Your task to perform on an android device: What's on my calendar tomorrow? Image 0: 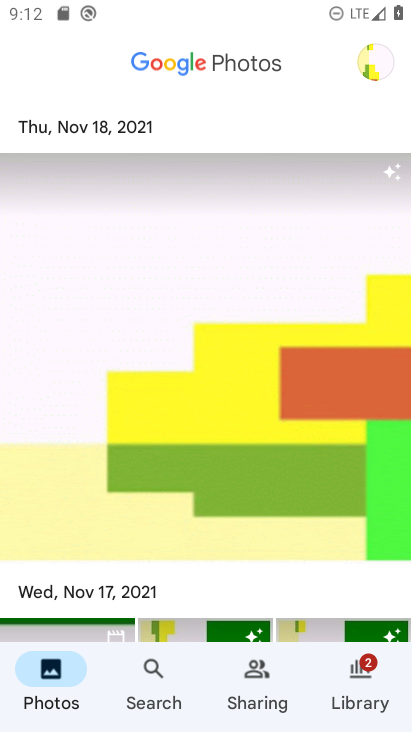
Step 0: press home button
Your task to perform on an android device: What's on my calendar tomorrow? Image 1: 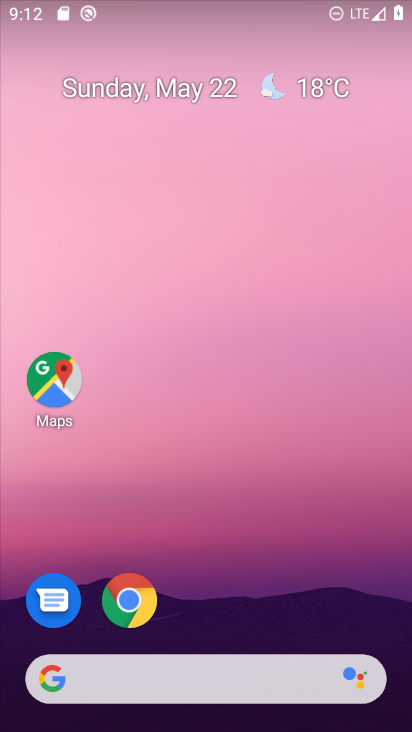
Step 1: drag from (396, 633) to (344, 33)
Your task to perform on an android device: What's on my calendar tomorrow? Image 2: 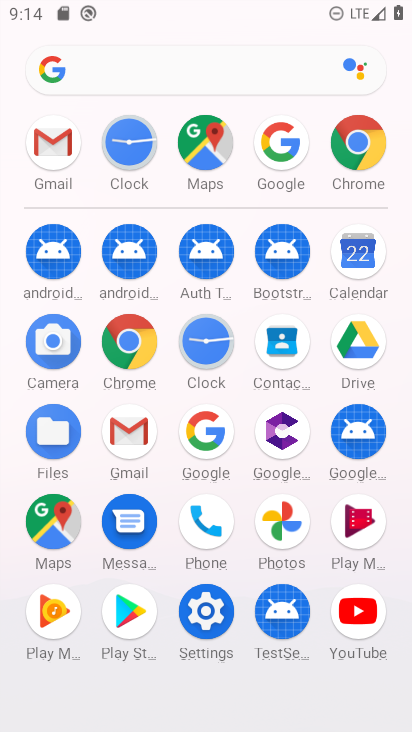
Step 2: click (352, 275)
Your task to perform on an android device: What's on my calendar tomorrow? Image 3: 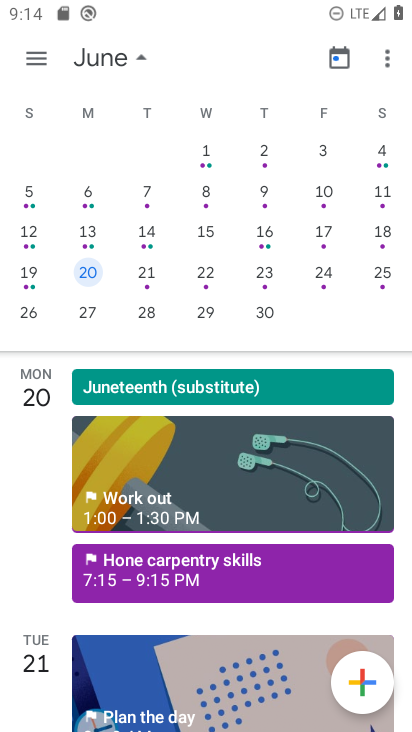
Step 3: click (38, 62)
Your task to perform on an android device: What's on my calendar tomorrow? Image 4: 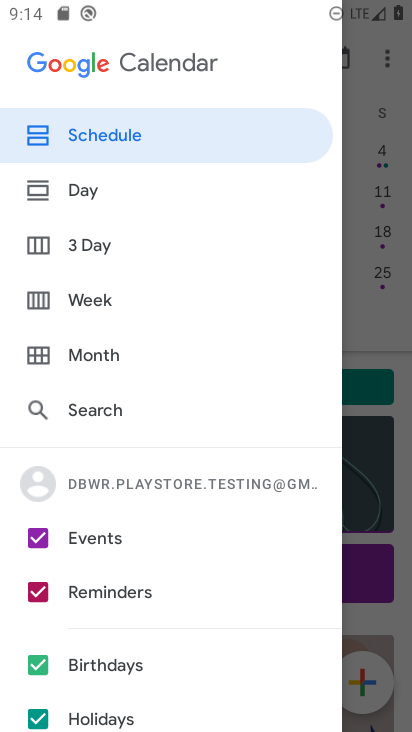
Step 4: click (401, 327)
Your task to perform on an android device: What's on my calendar tomorrow? Image 5: 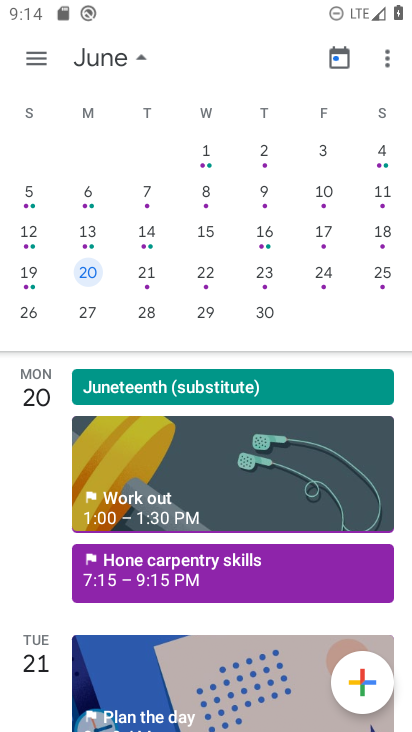
Step 5: drag from (25, 177) to (345, 209)
Your task to perform on an android device: What's on my calendar tomorrow? Image 6: 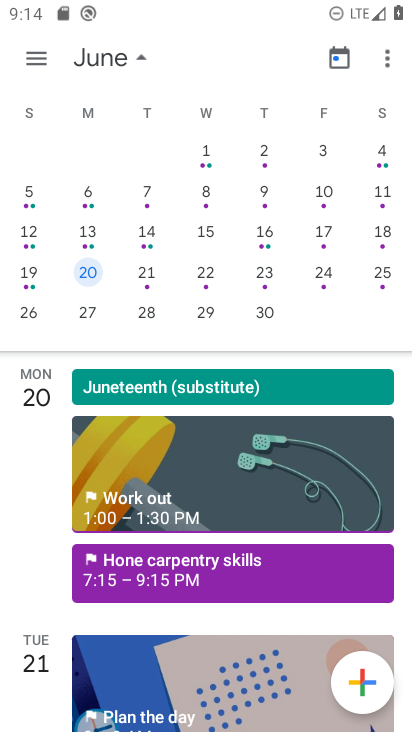
Step 6: drag from (20, 227) to (375, 207)
Your task to perform on an android device: What's on my calendar tomorrow? Image 7: 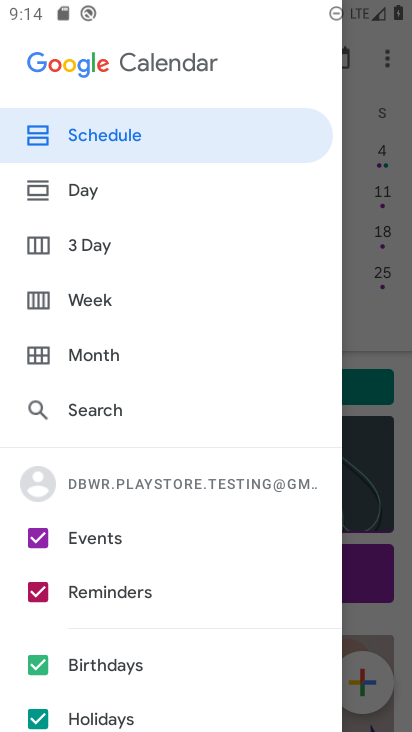
Step 7: drag from (390, 323) to (322, 320)
Your task to perform on an android device: What's on my calendar tomorrow? Image 8: 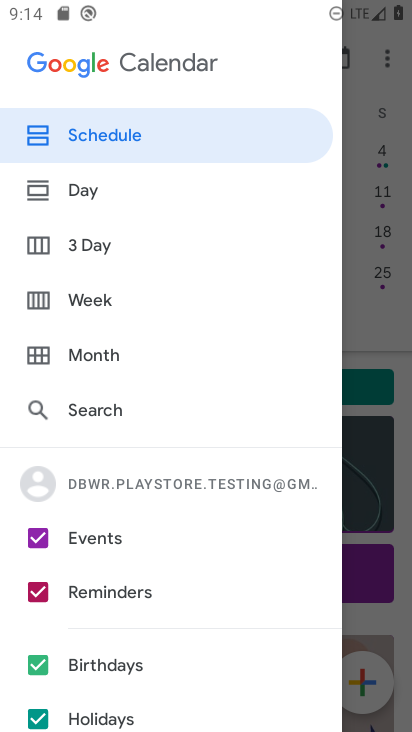
Step 8: click (360, 319)
Your task to perform on an android device: What's on my calendar tomorrow? Image 9: 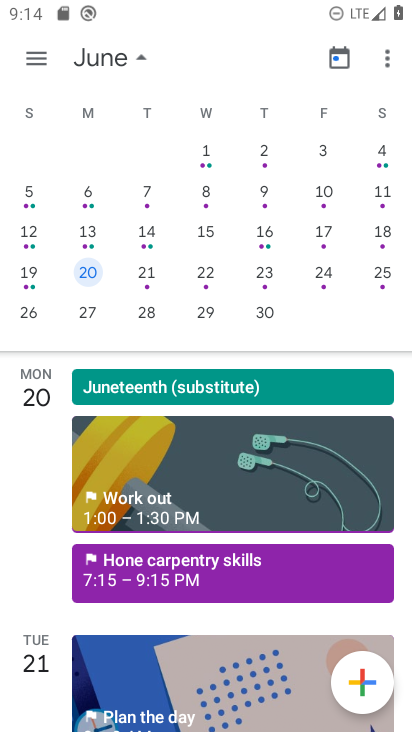
Step 9: drag from (10, 198) to (382, 192)
Your task to perform on an android device: What's on my calendar tomorrow? Image 10: 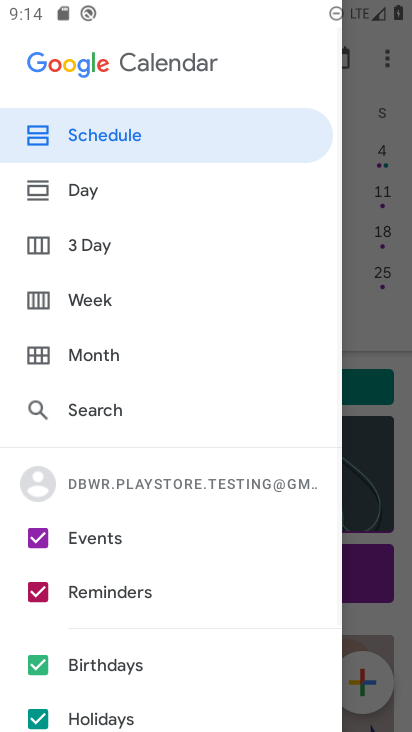
Step 10: click (359, 307)
Your task to perform on an android device: What's on my calendar tomorrow? Image 11: 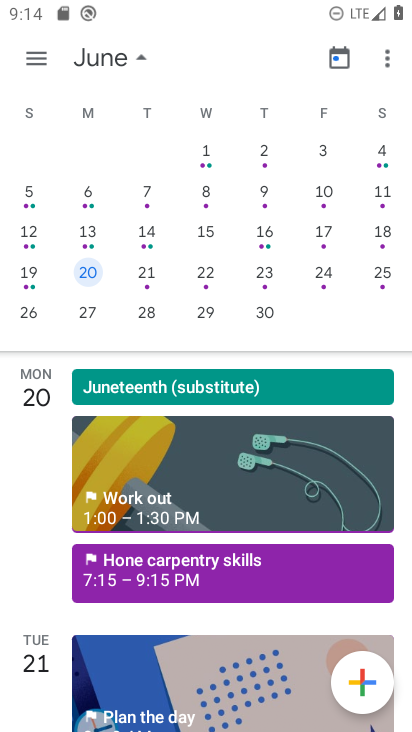
Step 11: drag from (140, 237) to (394, 237)
Your task to perform on an android device: What's on my calendar tomorrow? Image 12: 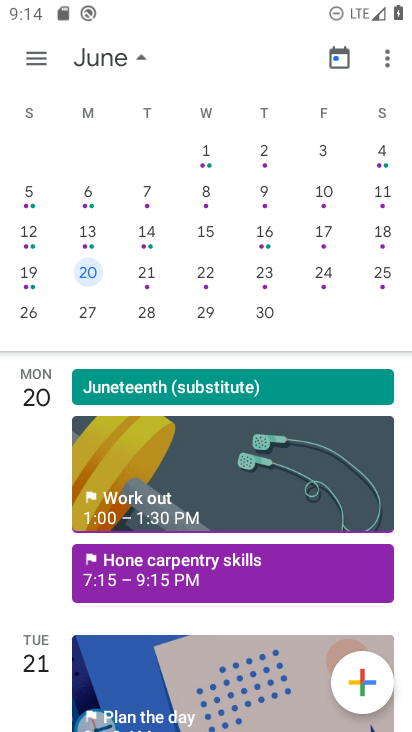
Step 12: drag from (69, 241) to (336, 232)
Your task to perform on an android device: What's on my calendar tomorrow? Image 13: 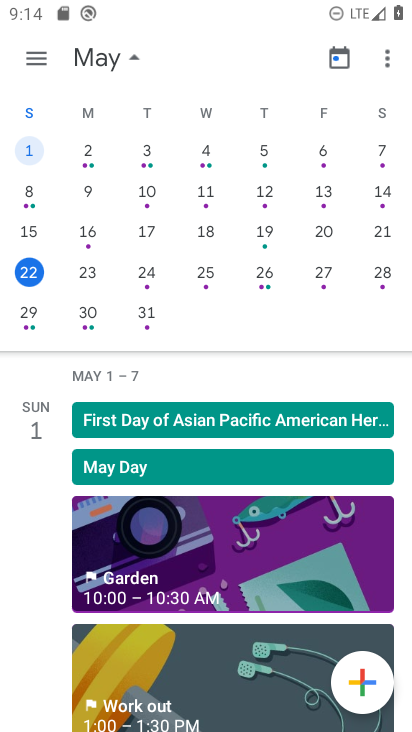
Step 13: click (142, 270)
Your task to perform on an android device: What's on my calendar tomorrow? Image 14: 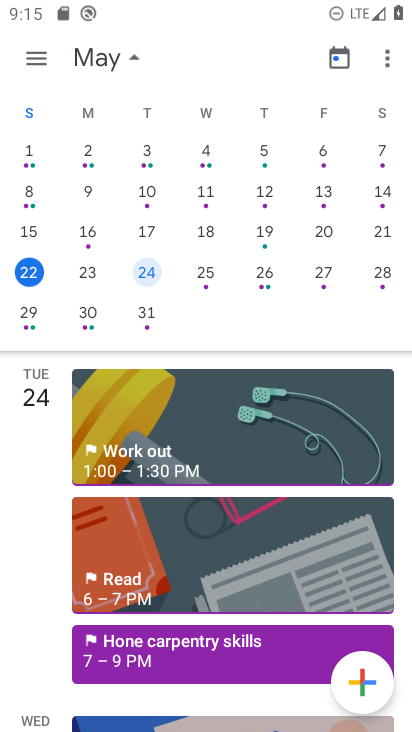
Step 14: click (259, 388)
Your task to perform on an android device: What's on my calendar tomorrow? Image 15: 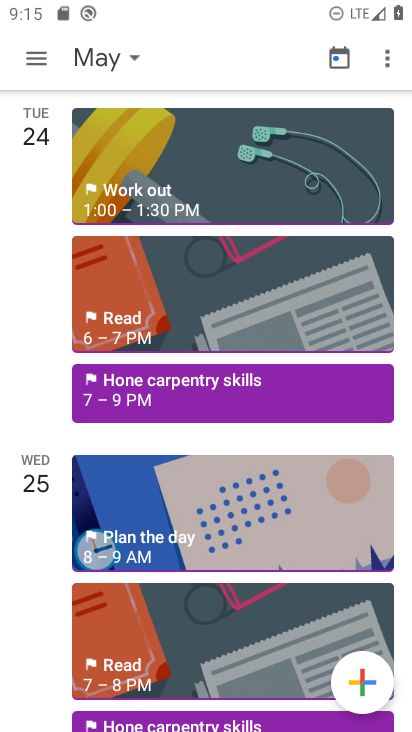
Step 15: task complete